Your task to perform on an android device: Open Chrome and go to the settings page Image 0: 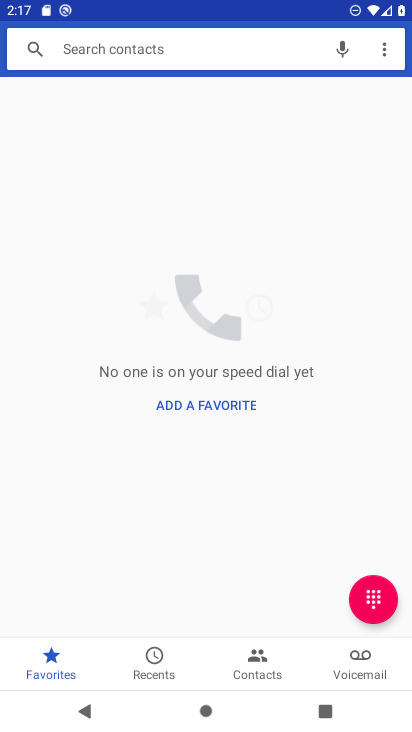
Step 0: press home button
Your task to perform on an android device: Open Chrome and go to the settings page Image 1: 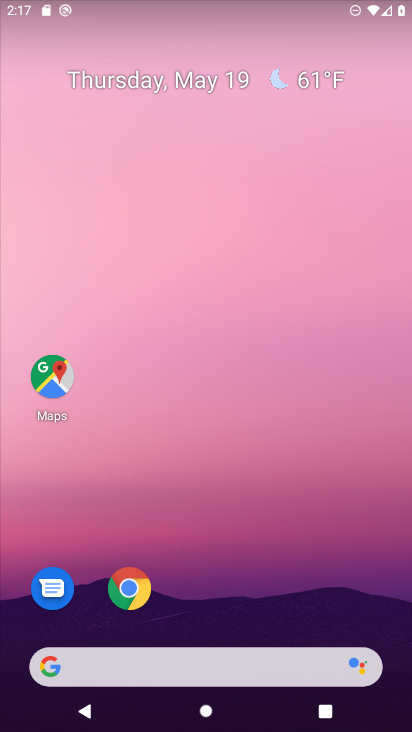
Step 1: click (120, 586)
Your task to perform on an android device: Open Chrome and go to the settings page Image 2: 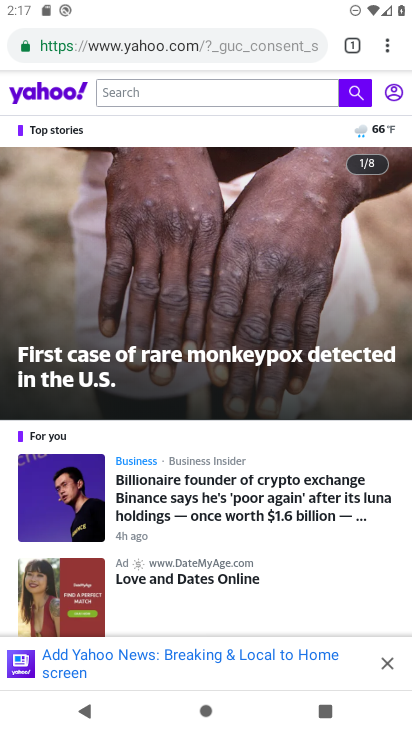
Step 2: click (385, 41)
Your task to perform on an android device: Open Chrome and go to the settings page Image 3: 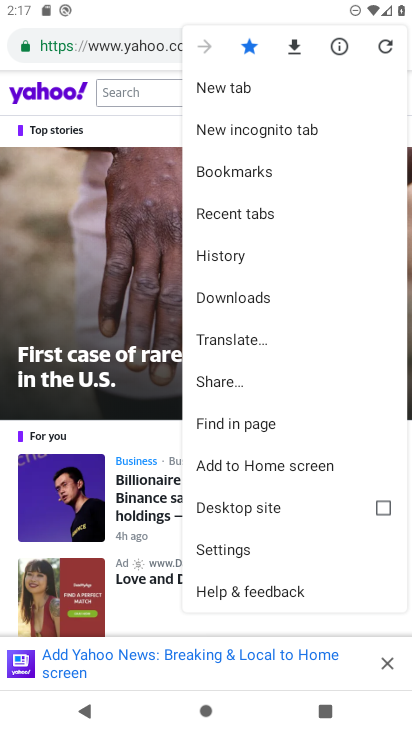
Step 3: click (239, 549)
Your task to perform on an android device: Open Chrome and go to the settings page Image 4: 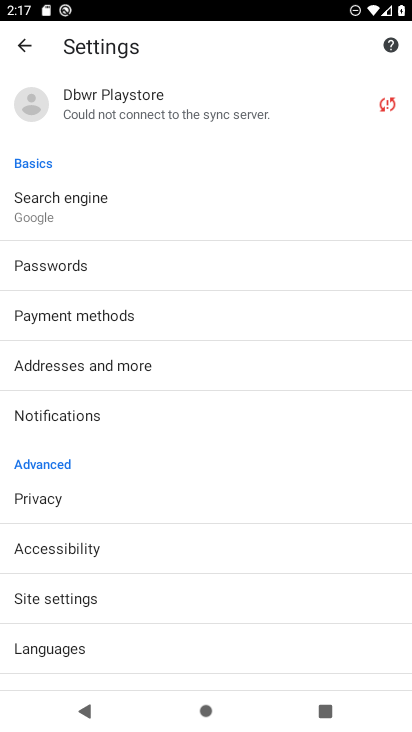
Step 4: task complete